Your task to perform on an android device: open the mobile data screen to see how much data has been used Image 0: 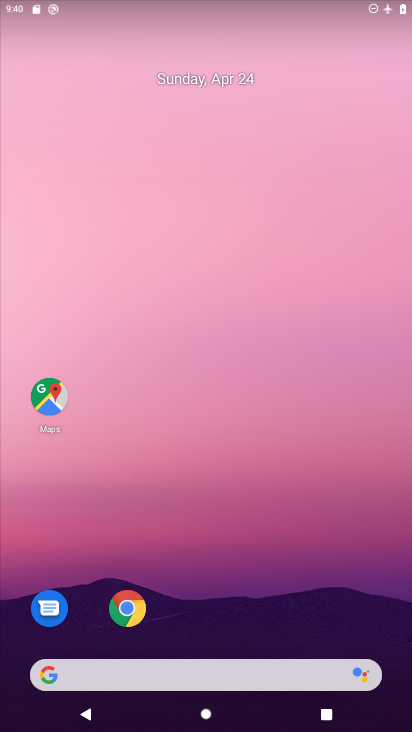
Step 0: drag from (198, 539) to (202, 152)
Your task to perform on an android device: open the mobile data screen to see how much data has been used Image 1: 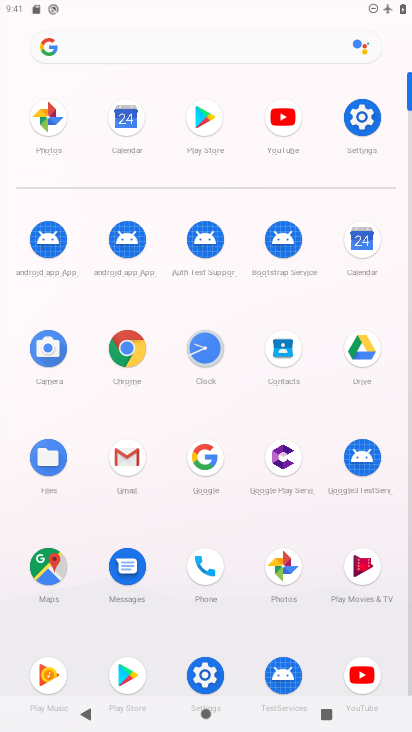
Step 1: click (356, 116)
Your task to perform on an android device: open the mobile data screen to see how much data has been used Image 2: 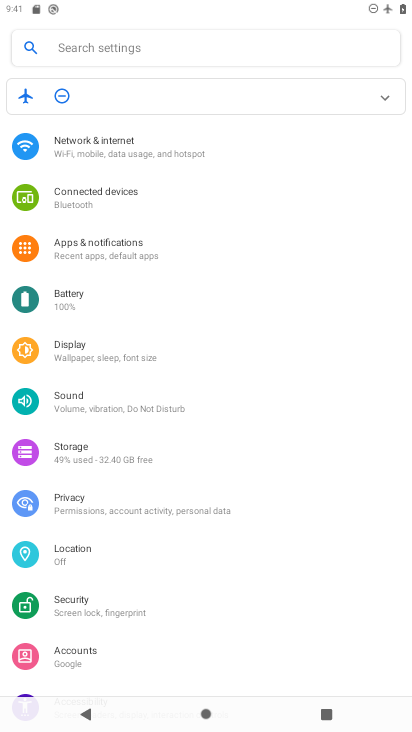
Step 2: click (157, 149)
Your task to perform on an android device: open the mobile data screen to see how much data has been used Image 3: 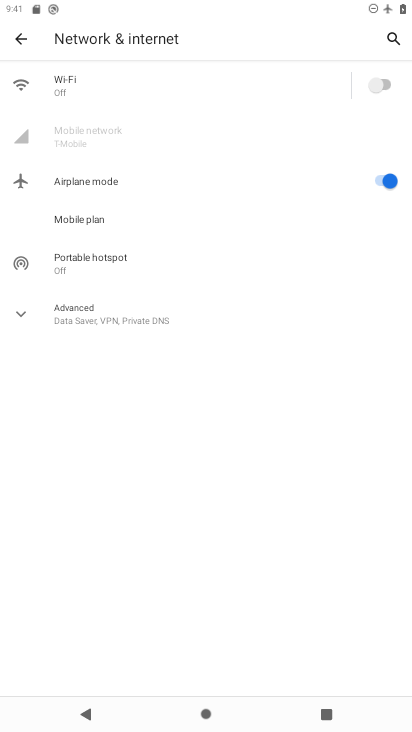
Step 3: click (143, 146)
Your task to perform on an android device: open the mobile data screen to see how much data has been used Image 4: 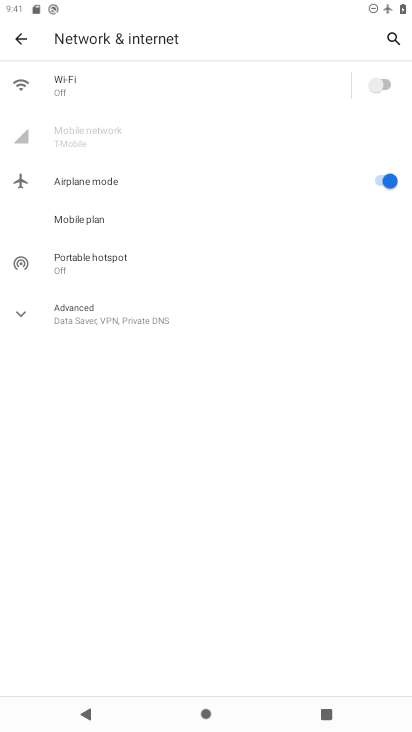
Step 4: task complete